Your task to perform on an android device: turn on bluetooth scan Image 0: 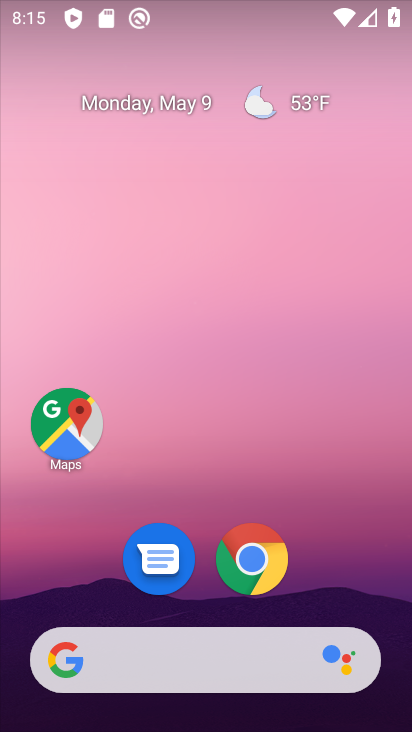
Step 0: drag from (382, 669) to (178, 39)
Your task to perform on an android device: turn on bluetooth scan Image 1: 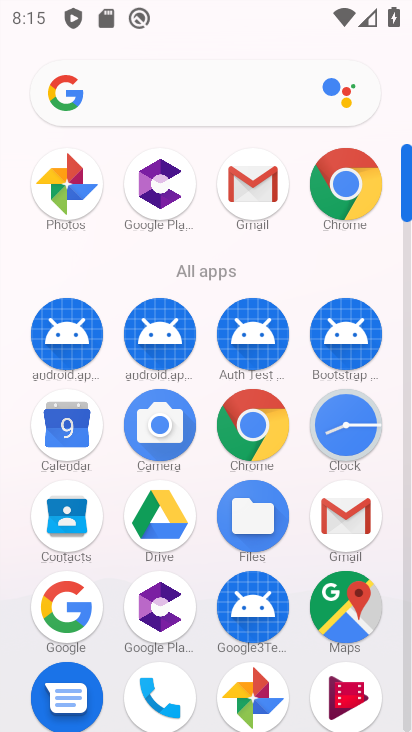
Step 1: drag from (190, 584) to (159, 94)
Your task to perform on an android device: turn on bluetooth scan Image 2: 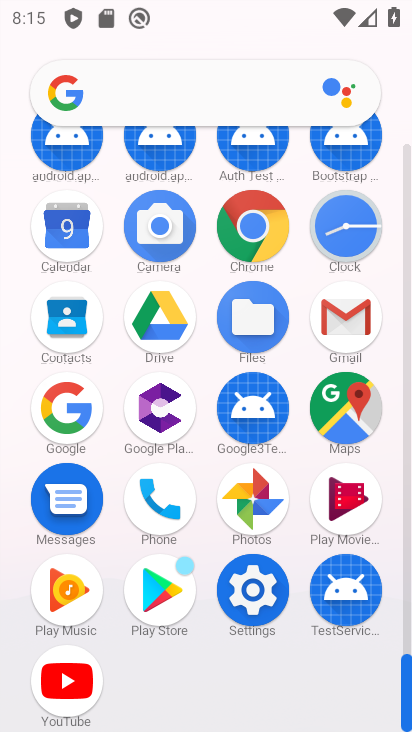
Step 2: drag from (217, 435) to (178, 119)
Your task to perform on an android device: turn on bluetooth scan Image 3: 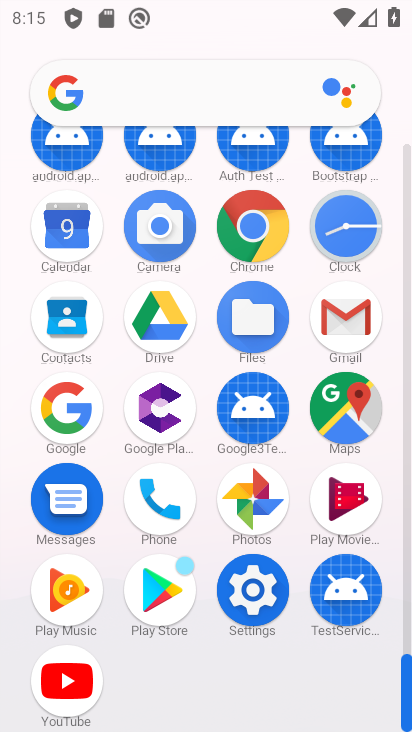
Step 3: click (247, 594)
Your task to perform on an android device: turn on bluetooth scan Image 4: 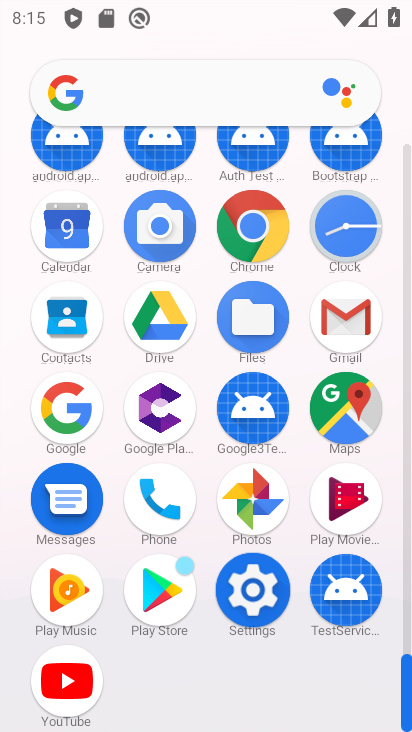
Step 4: click (247, 594)
Your task to perform on an android device: turn on bluetooth scan Image 5: 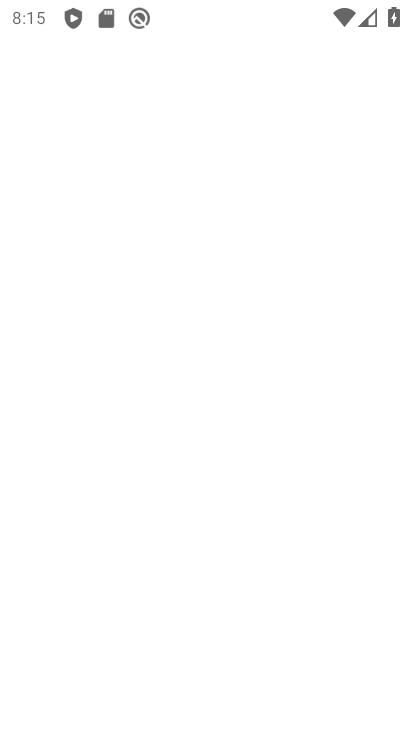
Step 5: click (243, 585)
Your task to perform on an android device: turn on bluetooth scan Image 6: 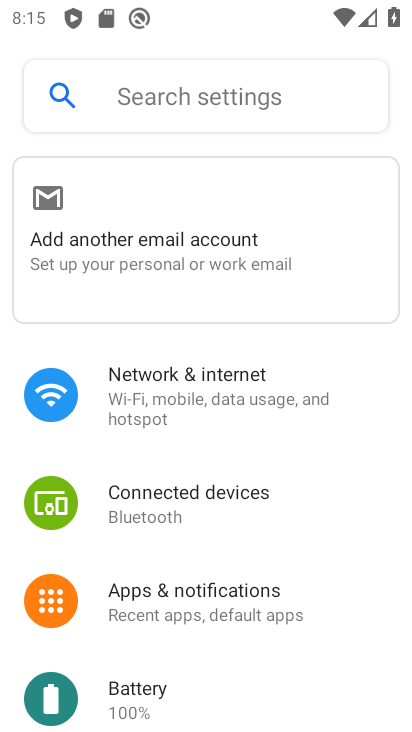
Step 6: drag from (203, 587) to (186, 150)
Your task to perform on an android device: turn on bluetooth scan Image 7: 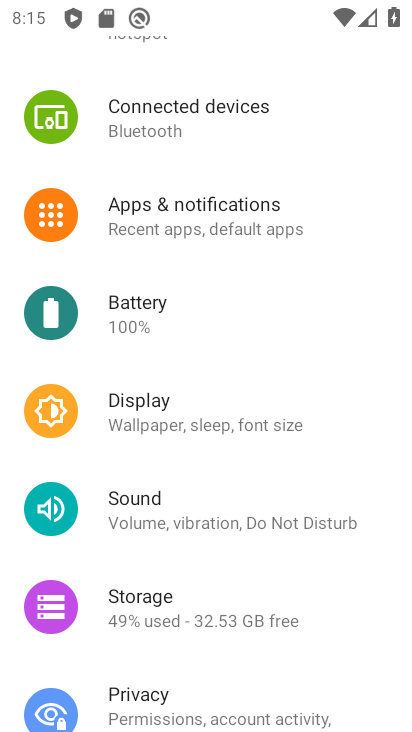
Step 7: drag from (231, 464) to (217, 175)
Your task to perform on an android device: turn on bluetooth scan Image 8: 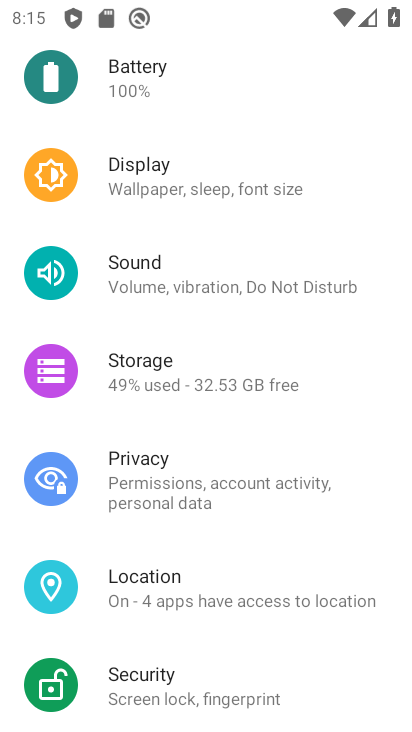
Step 8: drag from (231, 401) to (204, 67)
Your task to perform on an android device: turn on bluetooth scan Image 9: 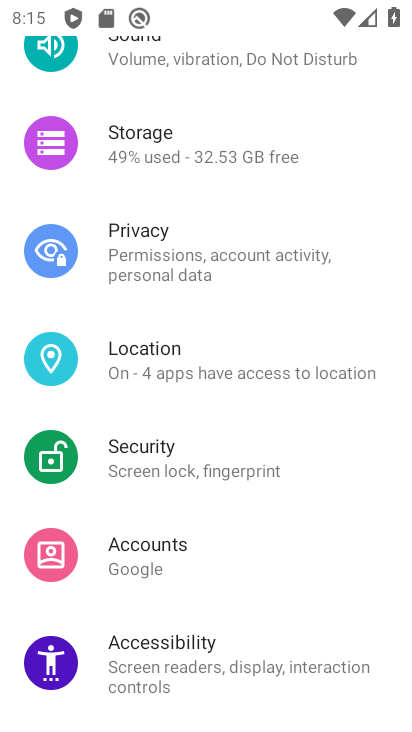
Step 9: drag from (207, 431) to (213, 155)
Your task to perform on an android device: turn on bluetooth scan Image 10: 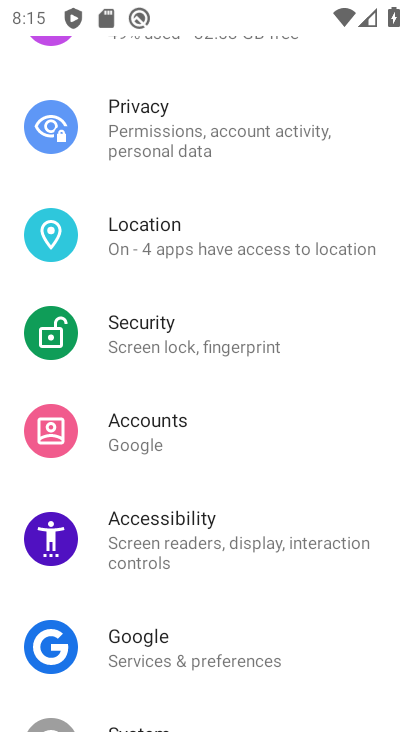
Step 10: click (145, 233)
Your task to perform on an android device: turn on bluetooth scan Image 11: 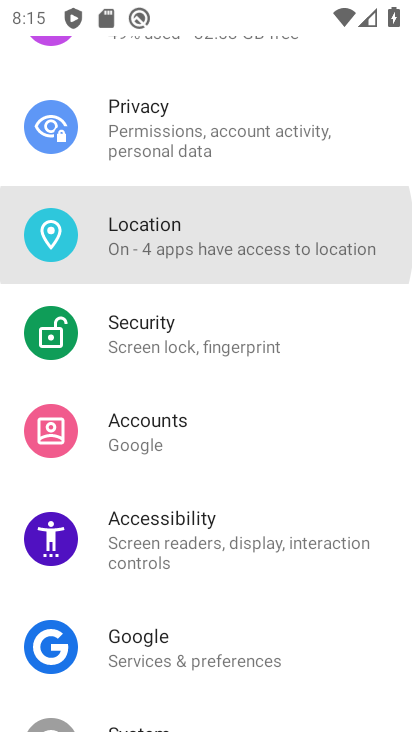
Step 11: click (153, 232)
Your task to perform on an android device: turn on bluetooth scan Image 12: 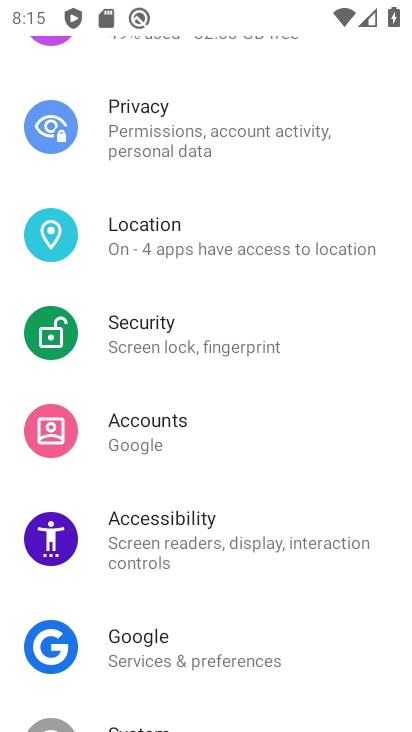
Step 12: click (153, 231)
Your task to perform on an android device: turn on bluetooth scan Image 13: 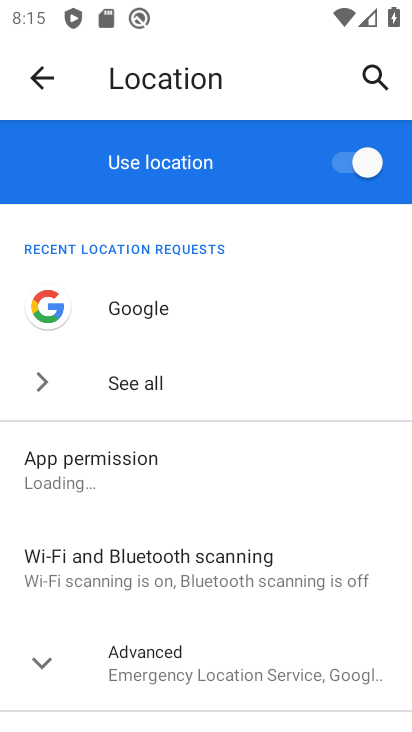
Step 13: drag from (179, 427) to (174, 174)
Your task to perform on an android device: turn on bluetooth scan Image 14: 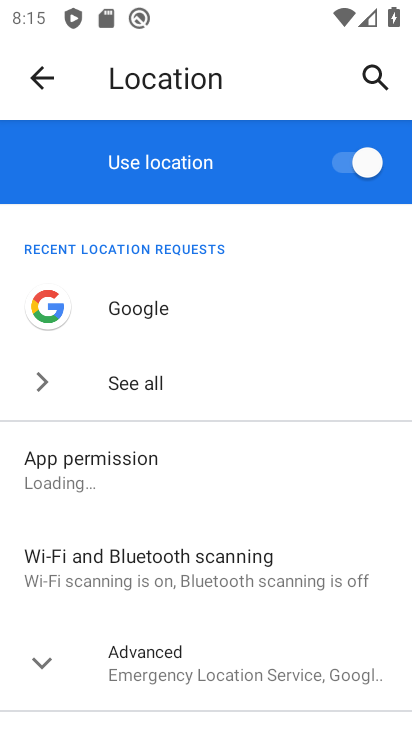
Step 14: drag from (223, 430) to (218, 9)
Your task to perform on an android device: turn on bluetooth scan Image 15: 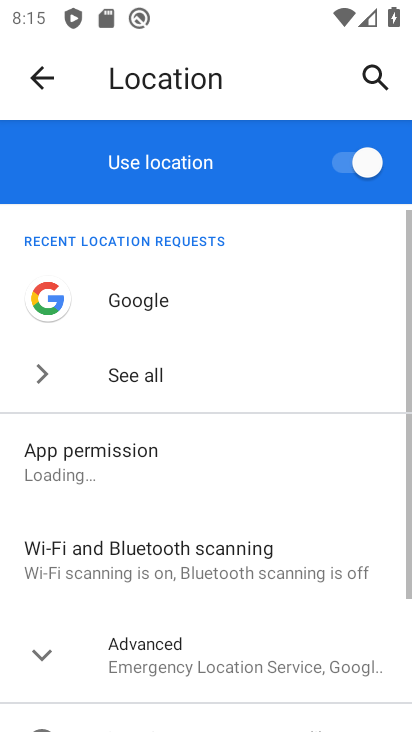
Step 15: drag from (200, 447) to (197, 23)
Your task to perform on an android device: turn on bluetooth scan Image 16: 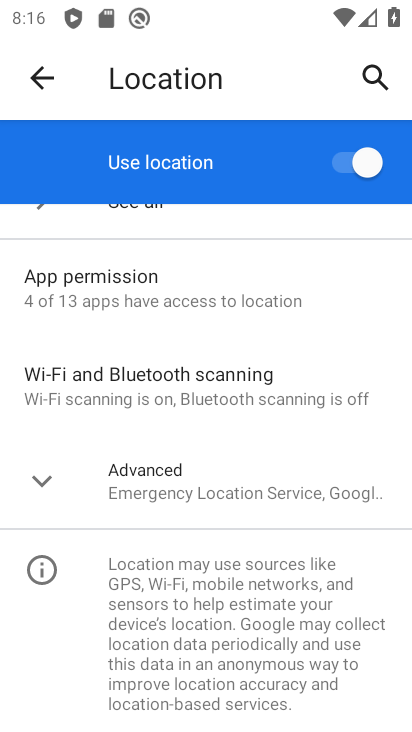
Step 16: click (154, 396)
Your task to perform on an android device: turn on bluetooth scan Image 17: 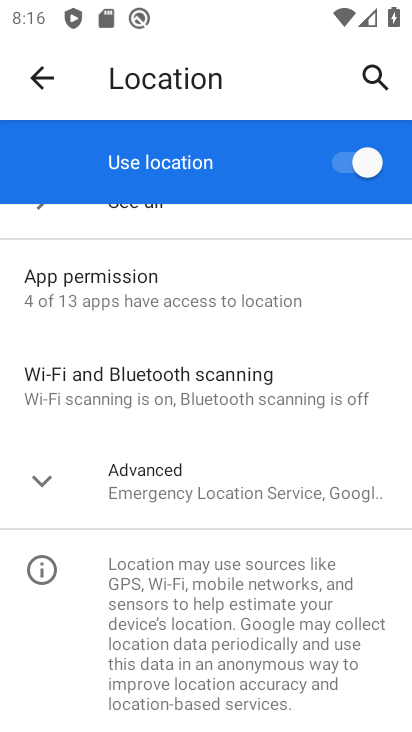
Step 17: click (153, 396)
Your task to perform on an android device: turn on bluetooth scan Image 18: 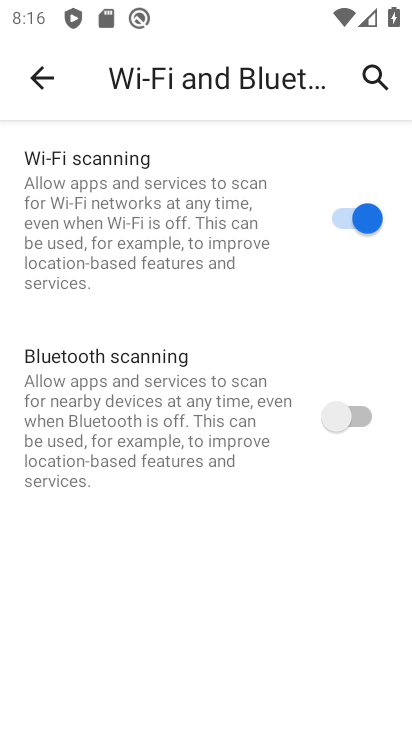
Step 18: click (151, 387)
Your task to perform on an android device: turn on bluetooth scan Image 19: 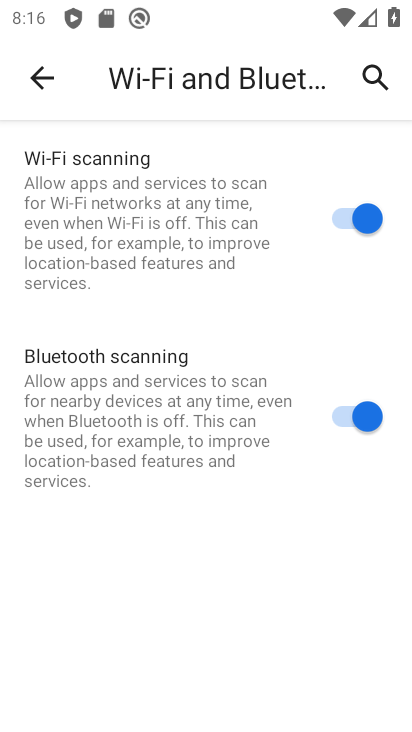
Step 19: task complete